Your task to perform on an android device: set an alarm Image 0: 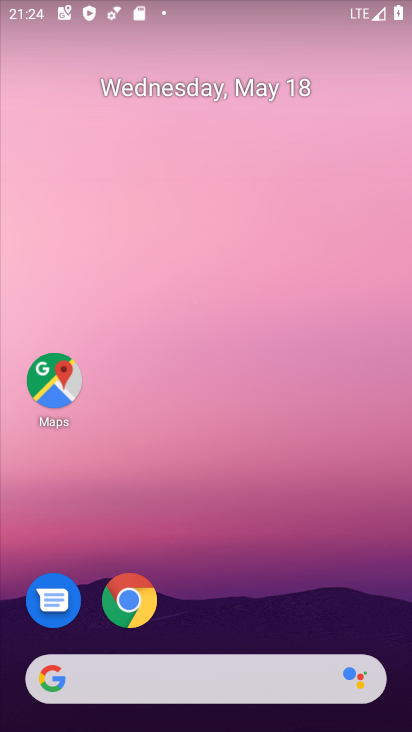
Step 0: drag from (238, 616) to (311, 54)
Your task to perform on an android device: set an alarm Image 1: 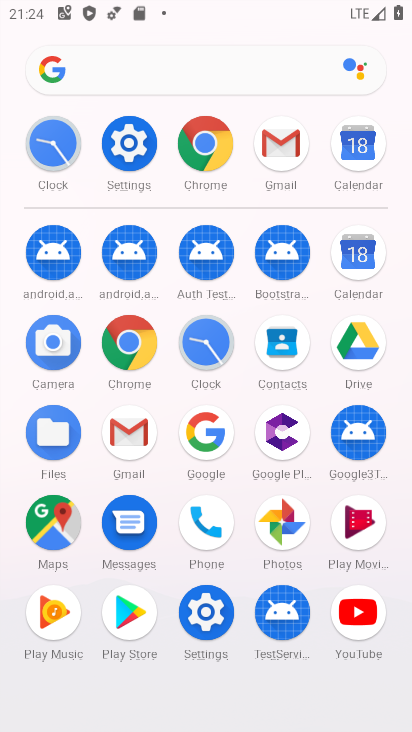
Step 1: click (208, 344)
Your task to perform on an android device: set an alarm Image 2: 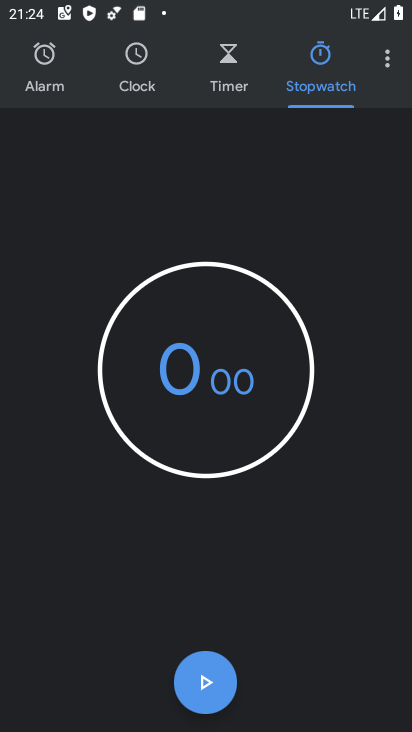
Step 2: click (45, 71)
Your task to perform on an android device: set an alarm Image 3: 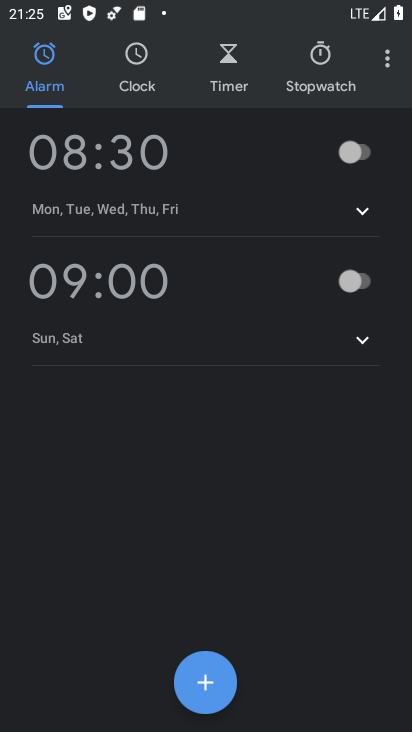
Step 3: click (371, 158)
Your task to perform on an android device: set an alarm Image 4: 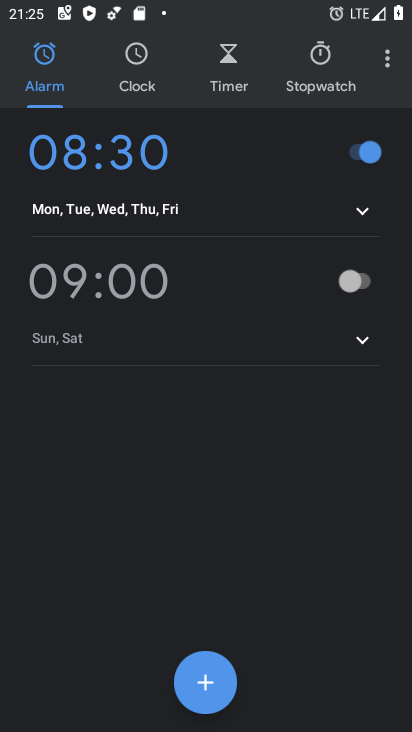
Step 4: task complete